Your task to perform on an android device: Open Google Maps Image 0: 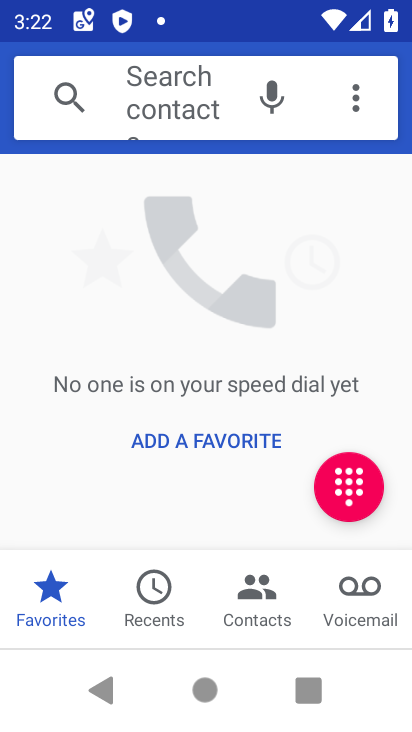
Step 0: press home button
Your task to perform on an android device: Open Google Maps Image 1: 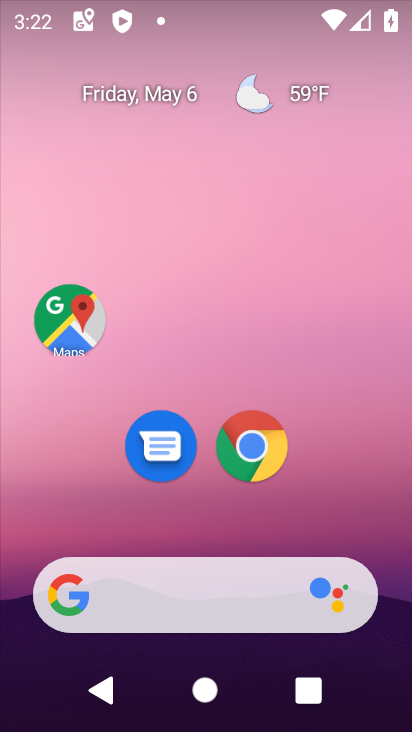
Step 1: click (60, 320)
Your task to perform on an android device: Open Google Maps Image 2: 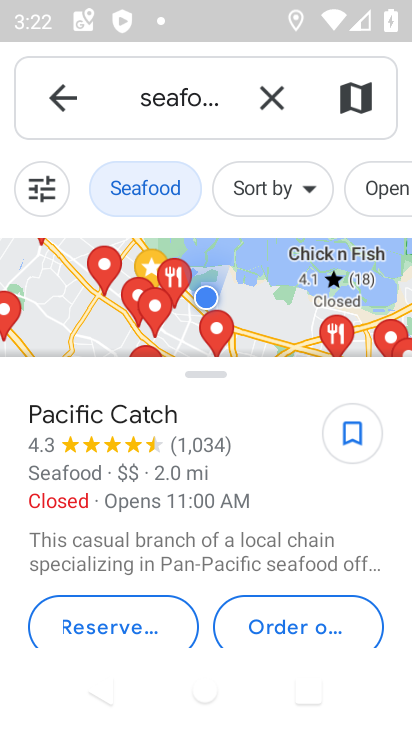
Step 2: click (275, 100)
Your task to perform on an android device: Open Google Maps Image 3: 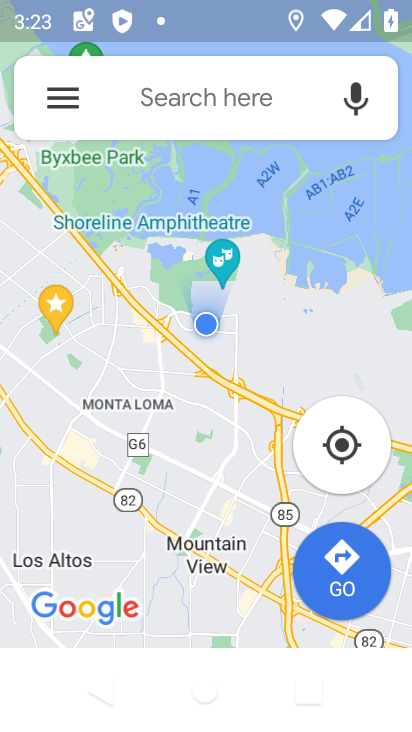
Step 3: task complete